Your task to perform on an android device: Do I have any events this weekend? Image 0: 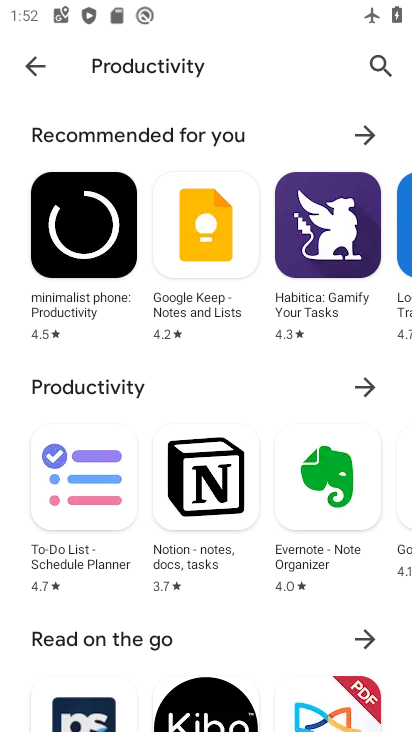
Step 0: press home button
Your task to perform on an android device: Do I have any events this weekend? Image 1: 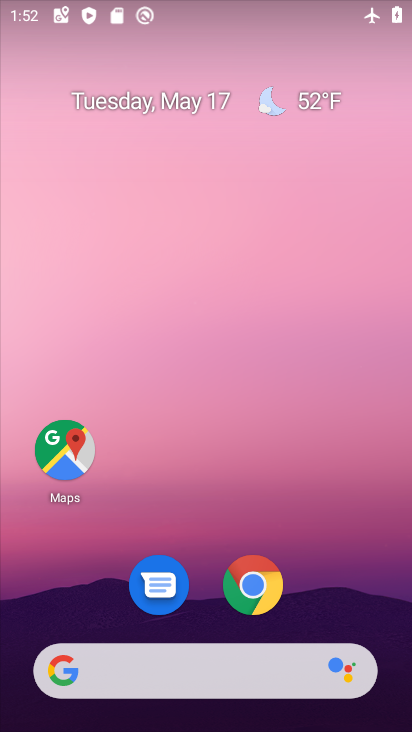
Step 1: drag from (190, 507) to (221, 65)
Your task to perform on an android device: Do I have any events this weekend? Image 2: 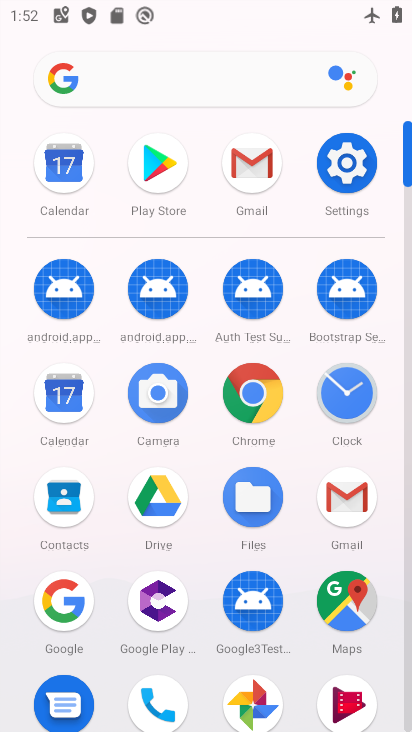
Step 2: click (68, 174)
Your task to perform on an android device: Do I have any events this weekend? Image 3: 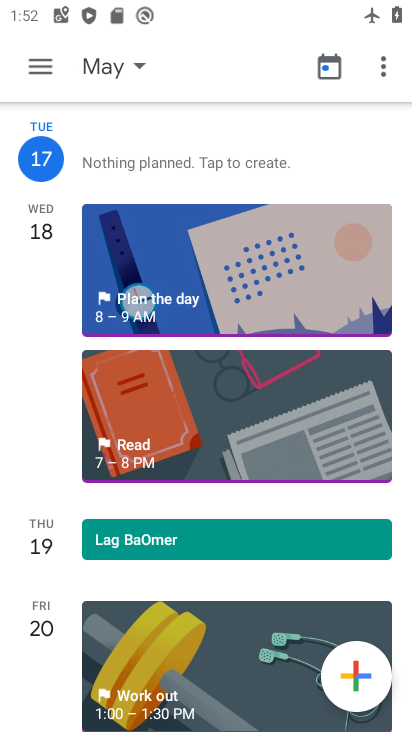
Step 3: task complete